Your task to perform on an android device: Open the calendar and show me this week's events? Image 0: 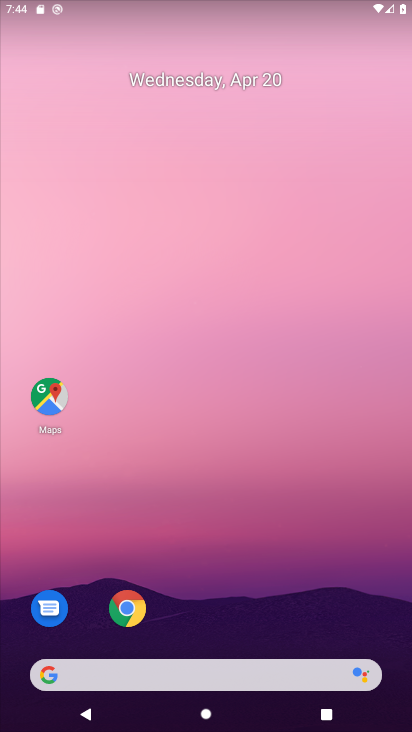
Step 0: drag from (268, 607) to (258, 209)
Your task to perform on an android device: Open the calendar and show me this week's events? Image 1: 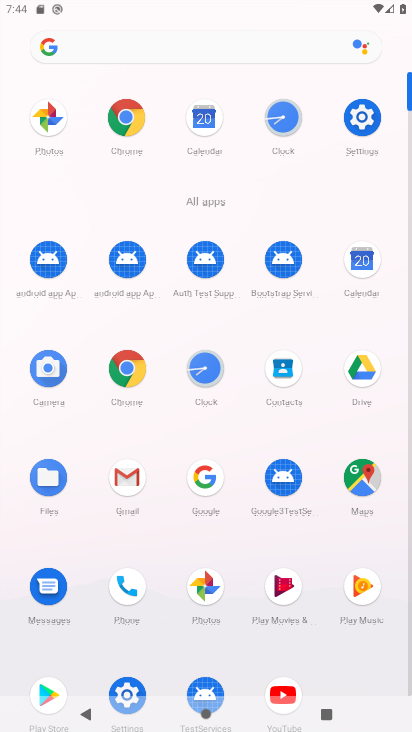
Step 1: click (358, 257)
Your task to perform on an android device: Open the calendar and show me this week's events? Image 2: 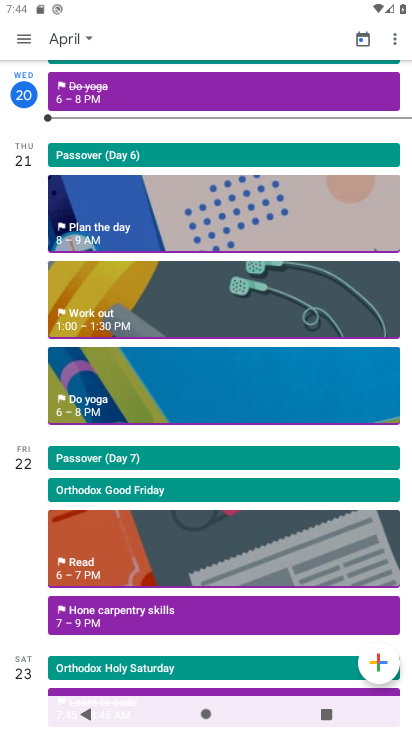
Step 2: click (31, 34)
Your task to perform on an android device: Open the calendar and show me this week's events? Image 3: 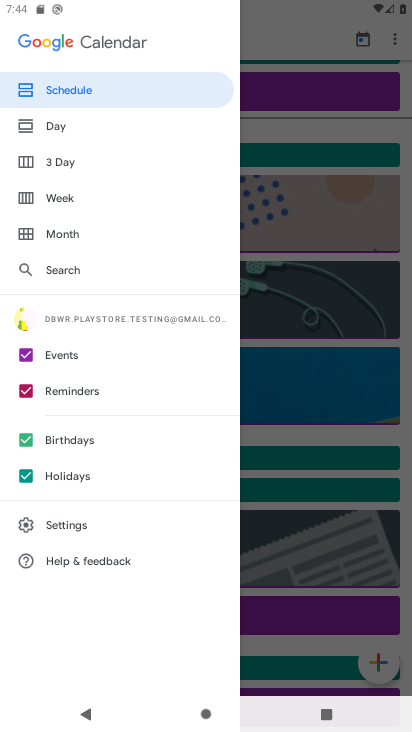
Step 3: click (81, 234)
Your task to perform on an android device: Open the calendar and show me this week's events? Image 4: 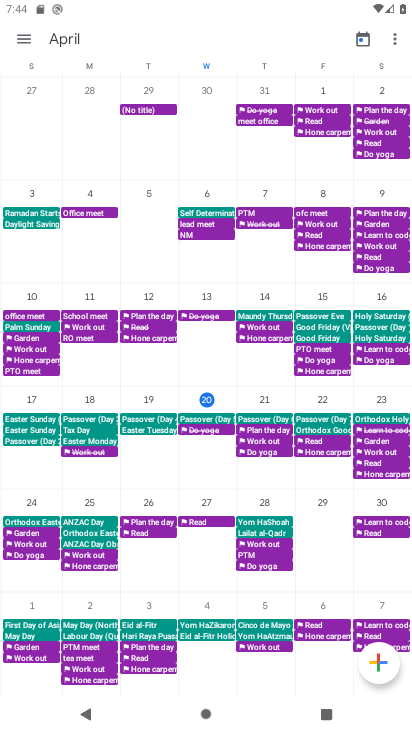
Step 4: task complete